Your task to perform on an android device: turn on translation in the chrome app Image 0: 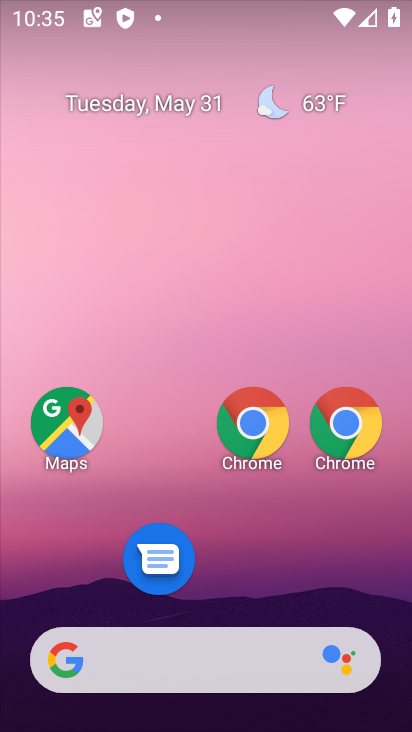
Step 0: drag from (248, 511) to (151, 122)
Your task to perform on an android device: turn on translation in the chrome app Image 1: 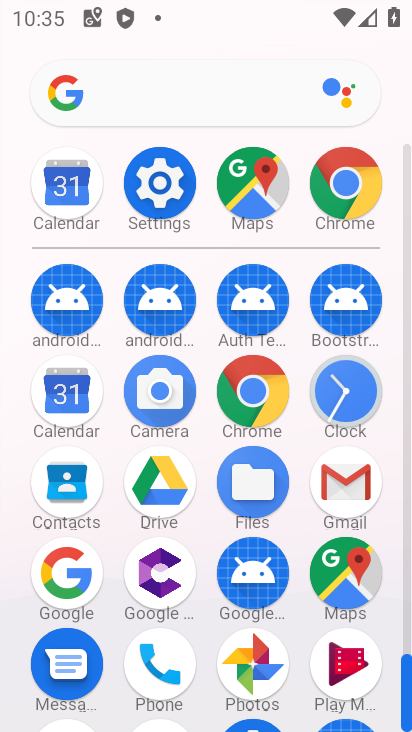
Step 1: click (343, 187)
Your task to perform on an android device: turn on translation in the chrome app Image 2: 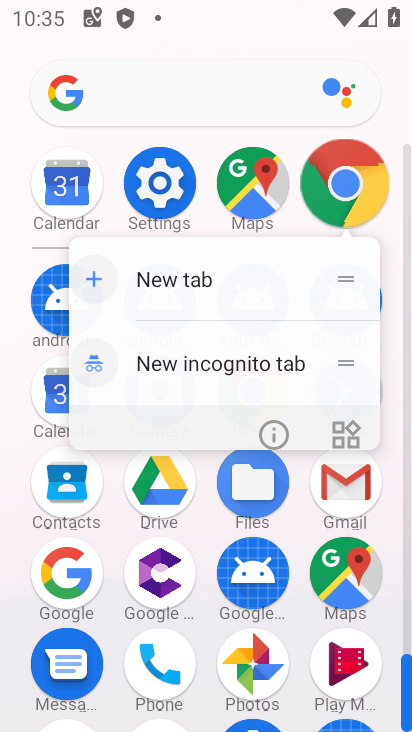
Step 2: click (338, 188)
Your task to perform on an android device: turn on translation in the chrome app Image 3: 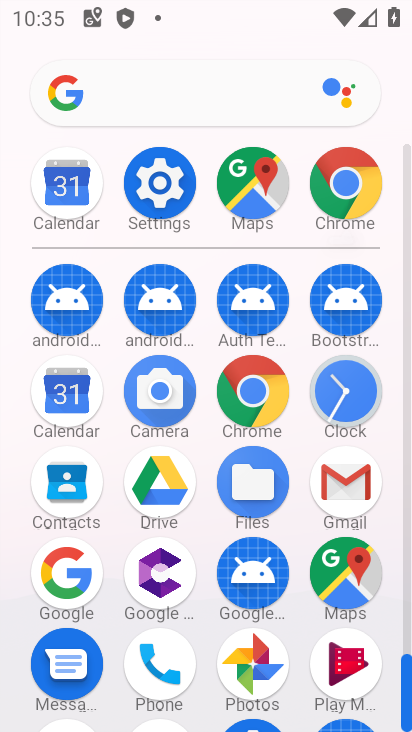
Step 3: click (340, 187)
Your task to perform on an android device: turn on translation in the chrome app Image 4: 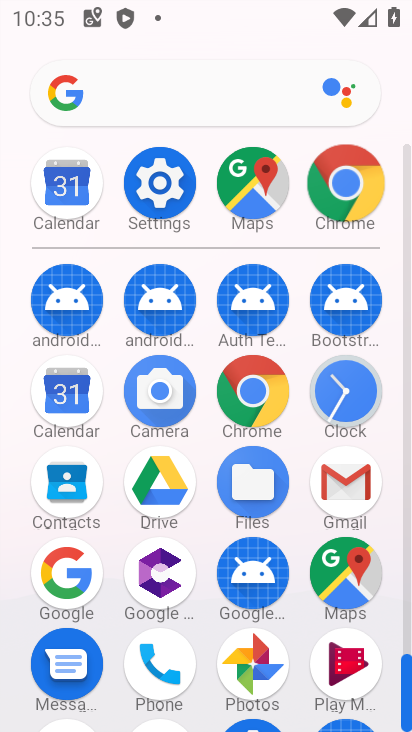
Step 4: click (338, 187)
Your task to perform on an android device: turn on translation in the chrome app Image 5: 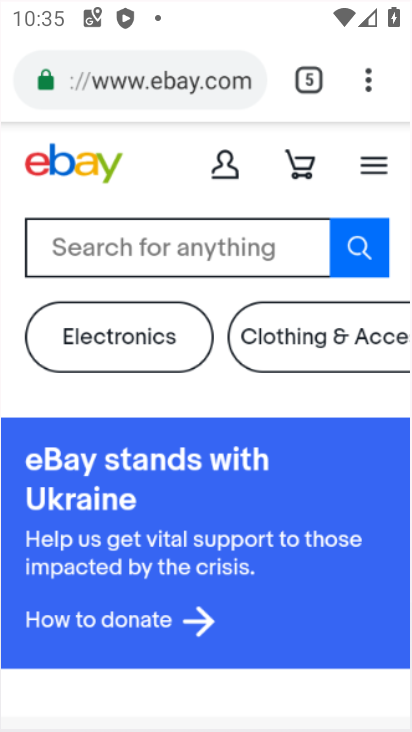
Step 5: click (338, 187)
Your task to perform on an android device: turn on translation in the chrome app Image 6: 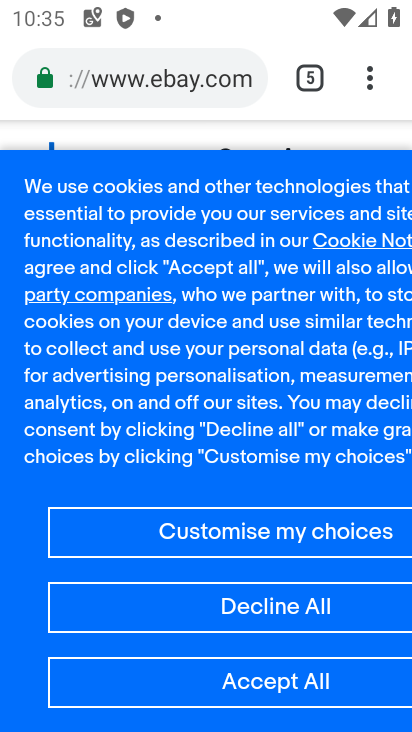
Step 6: drag from (364, 87) to (93, 609)
Your task to perform on an android device: turn on translation in the chrome app Image 7: 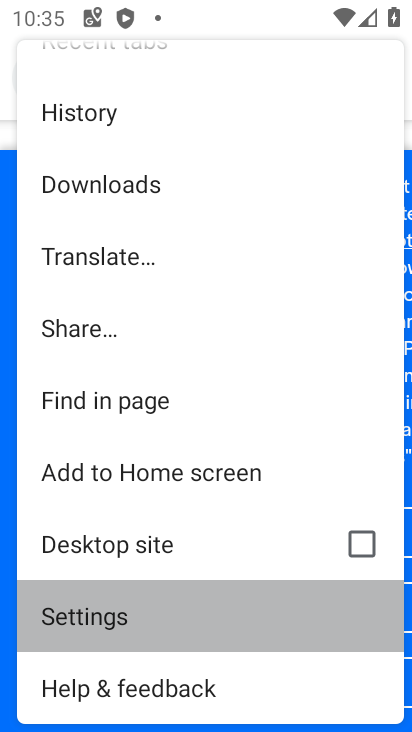
Step 7: click (92, 605)
Your task to perform on an android device: turn on translation in the chrome app Image 8: 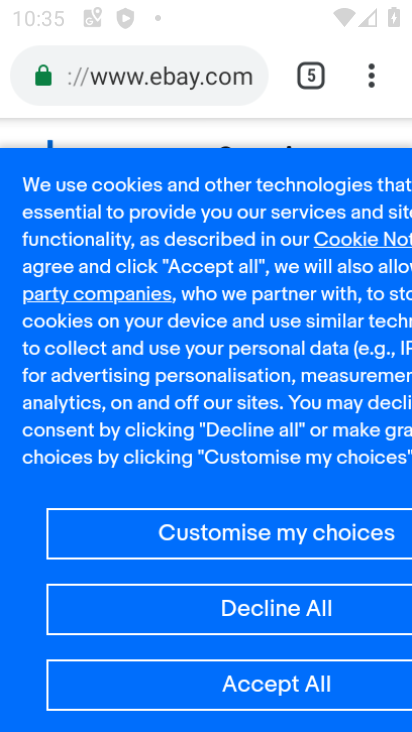
Step 8: click (91, 600)
Your task to perform on an android device: turn on translation in the chrome app Image 9: 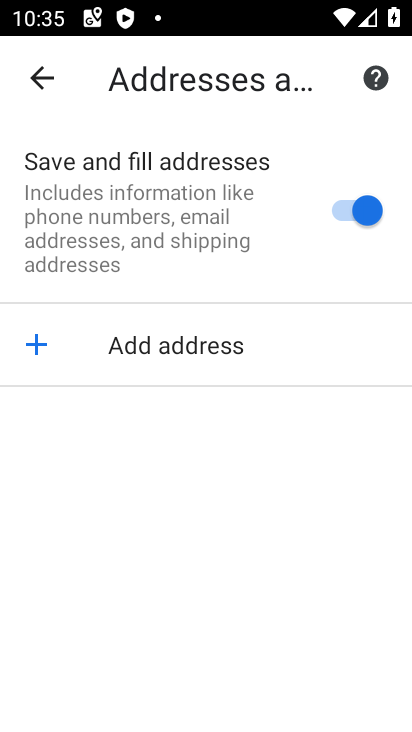
Step 9: click (39, 73)
Your task to perform on an android device: turn on translation in the chrome app Image 10: 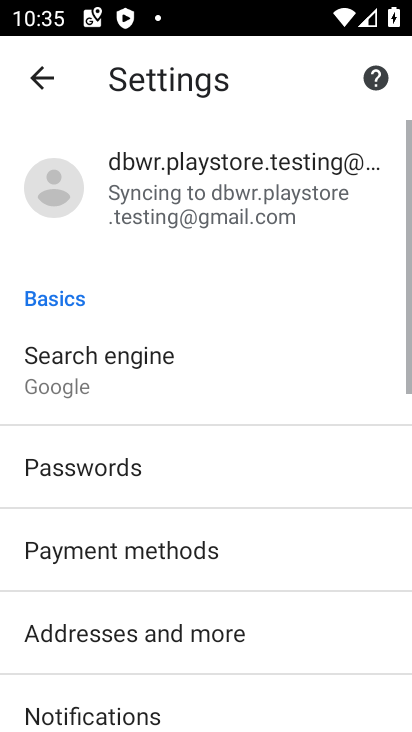
Step 10: drag from (130, 535) to (143, 274)
Your task to perform on an android device: turn on translation in the chrome app Image 11: 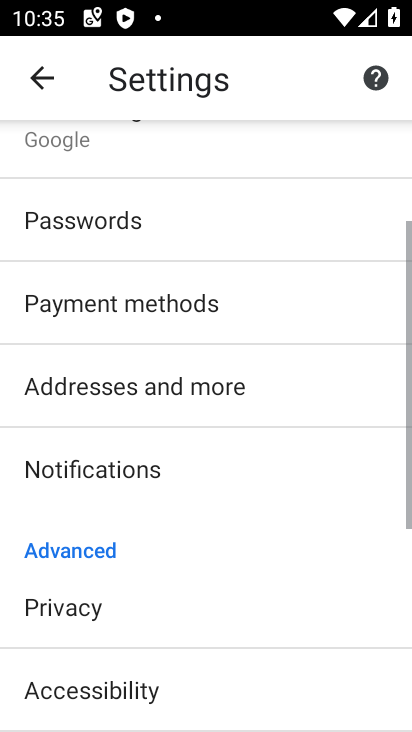
Step 11: drag from (199, 507) to (176, 192)
Your task to perform on an android device: turn on translation in the chrome app Image 12: 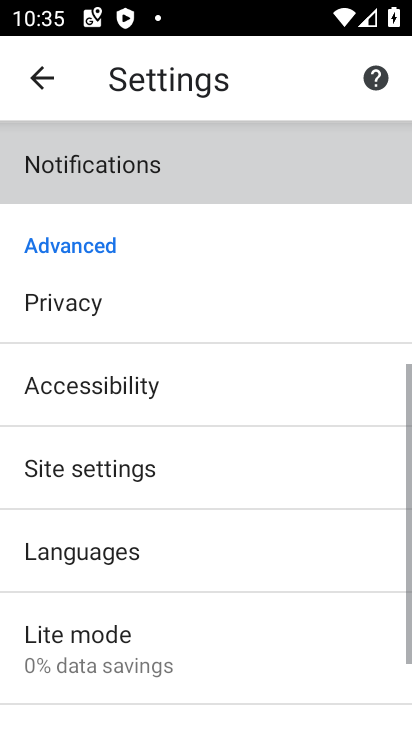
Step 12: drag from (208, 430) to (203, 163)
Your task to perform on an android device: turn on translation in the chrome app Image 13: 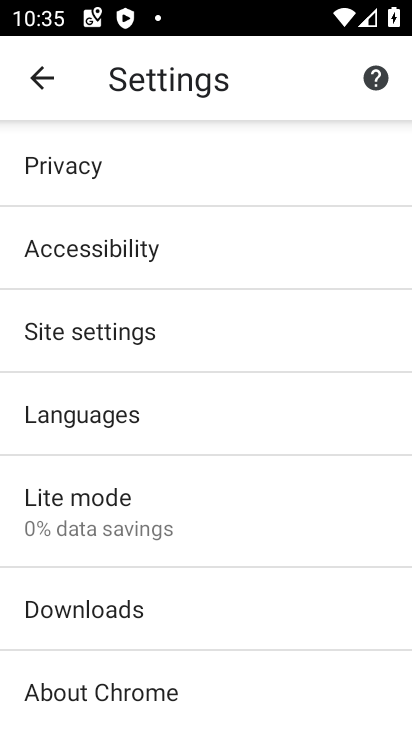
Step 13: click (72, 424)
Your task to perform on an android device: turn on translation in the chrome app Image 14: 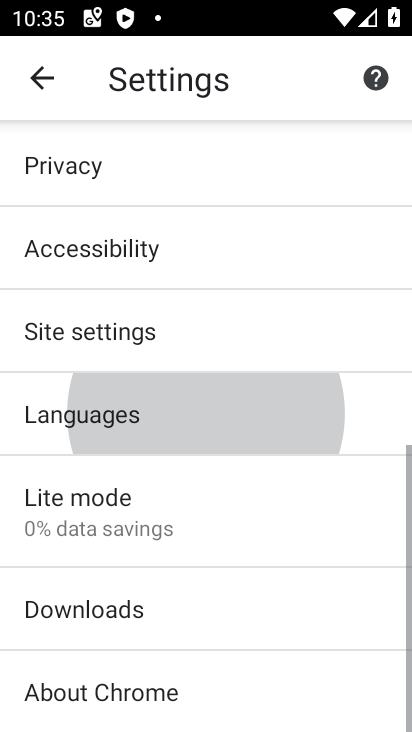
Step 14: click (72, 424)
Your task to perform on an android device: turn on translation in the chrome app Image 15: 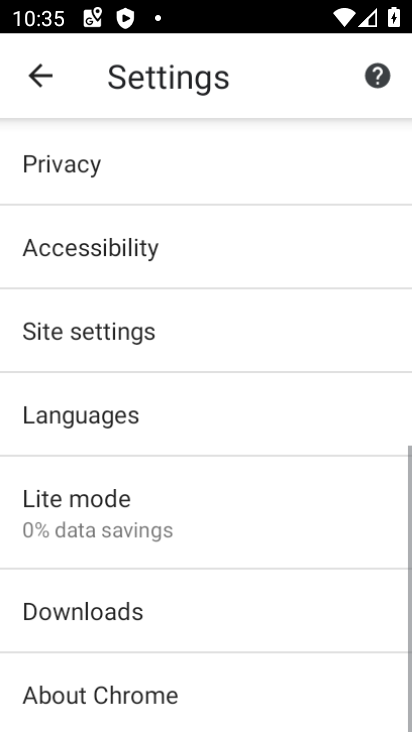
Step 15: click (69, 422)
Your task to perform on an android device: turn on translation in the chrome app Image 16: 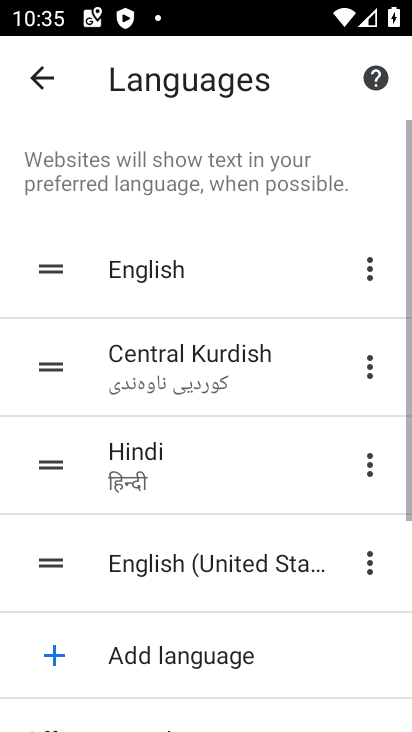
Step 16: drag from (180, 563) to (138, 268)
Your task to perform on an android device: turn on translation in the chrome app Image 17: 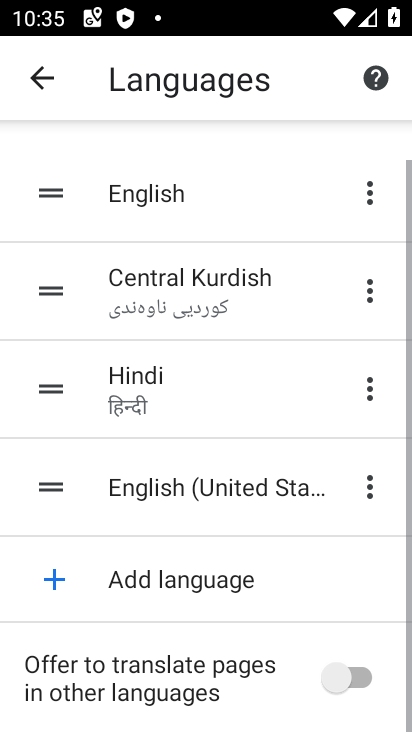
Step 17: drag from (223, 519) to (161, 140)
Your task to perform on an android device: turn on translation in the chrome app Image 18: 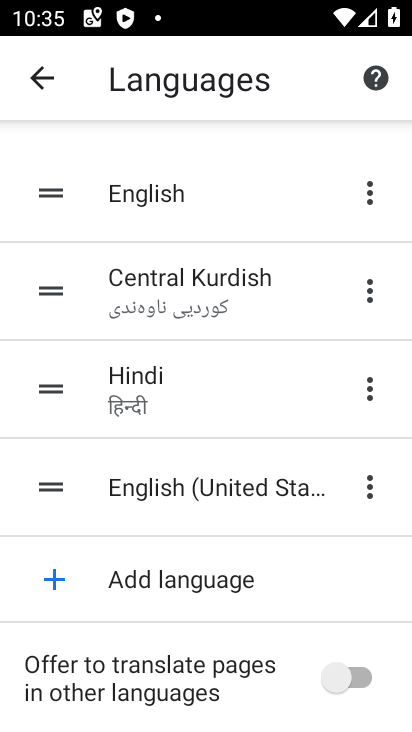
Step 18: drag from (185, 419) to (186, 134)
Your task to perform on an android device: turn on translation in the chrome app Image 19: 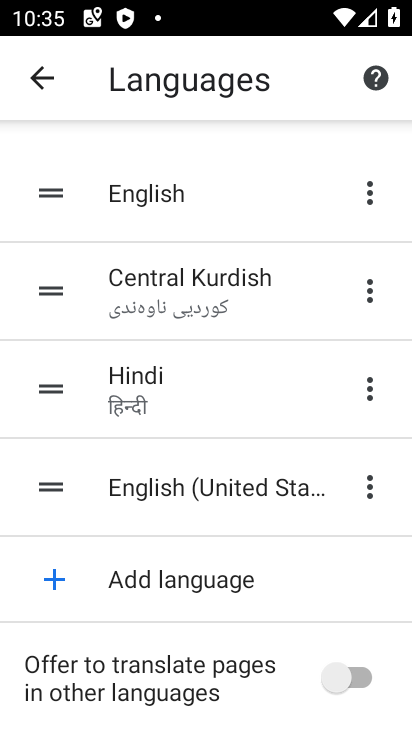
Step 19: click (347, 675)
Your task to perform on an android device: turn on translation in the chrome app Image 20: 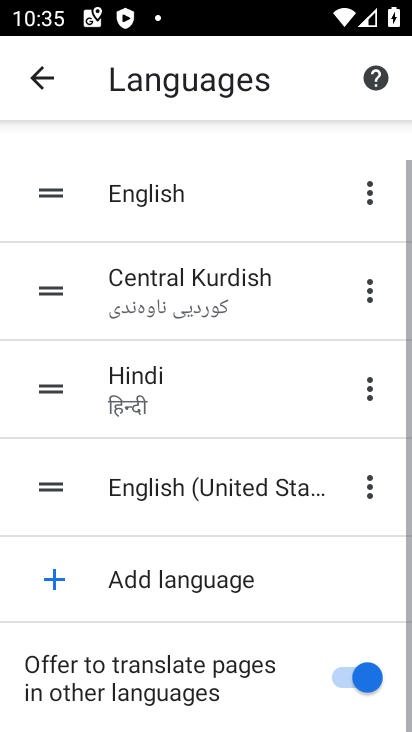
Step 20: task complete